Your task to perform on an android device: Search for pizza restaurants on Maps Image 0: 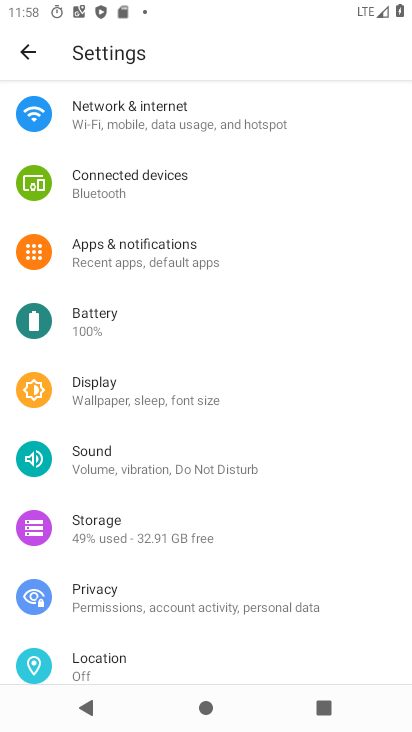
Step 0: press home button
Your task to perform on an android device: Search for pizza restaurants on Maps Image 1: 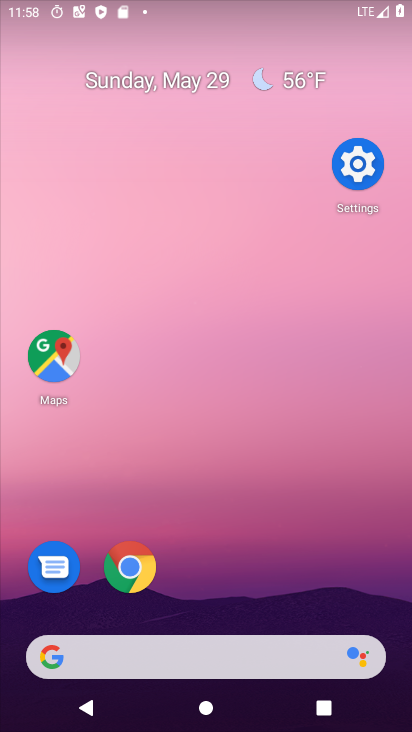
Step 1: drag from (343, 580) to (308, 171)
Your task to perform on an android device: Search for pizza restaurants on Maps Image 2: 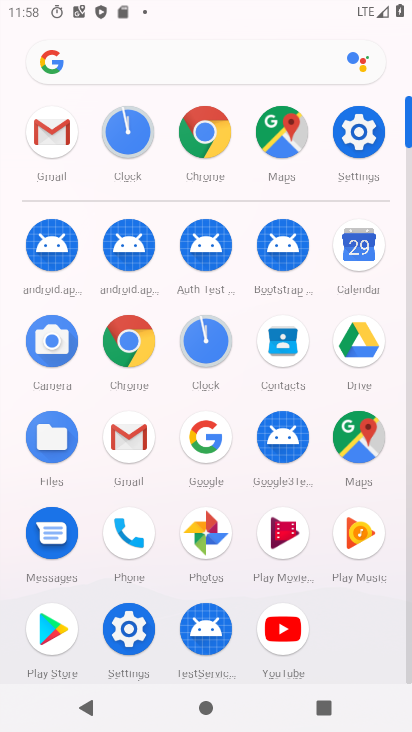
Step 2: click (355, 445)
Your task to perform on an android device: Search for pizza restaurants on Maps Image 3: 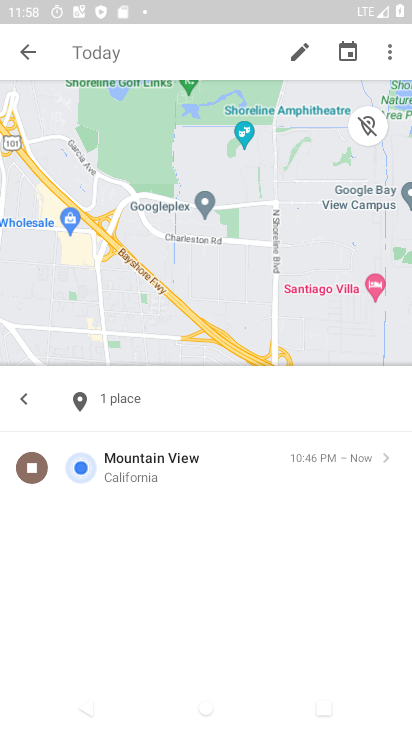
Step 3: click (29, 50)
Your task to perform on an android device: Search for pizza restaurants on Maps Image 4: 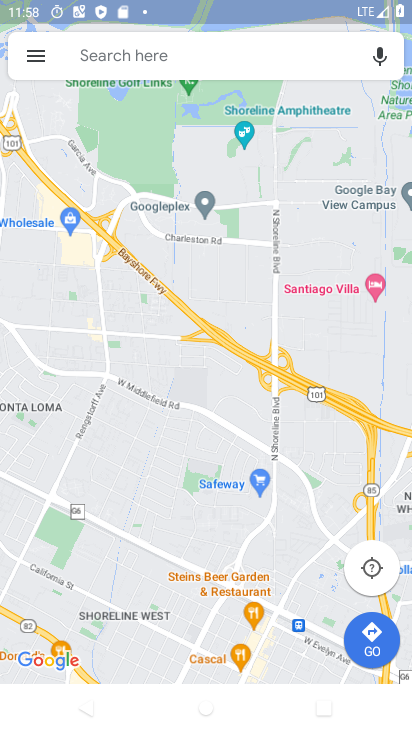
Step 4: click (124, 56)
Your task to perform on an android device: Search for pizza restaurants on Maps Image 5: 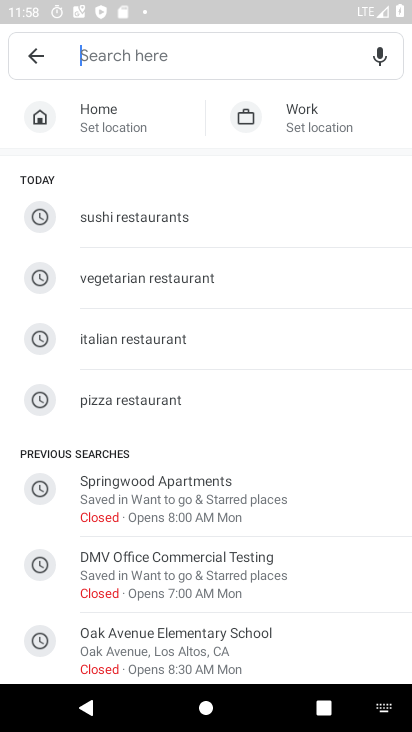
Step 5: click (191, 405)
Your task to perform on an android device: Search for pizza restaurants on Maps Image 6: 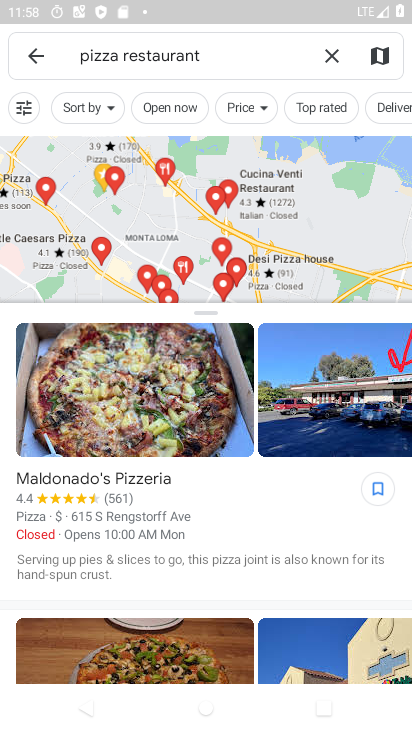
Step 6: task complete